Your task to perform on an android device: Go to accessibility settings Image 0: 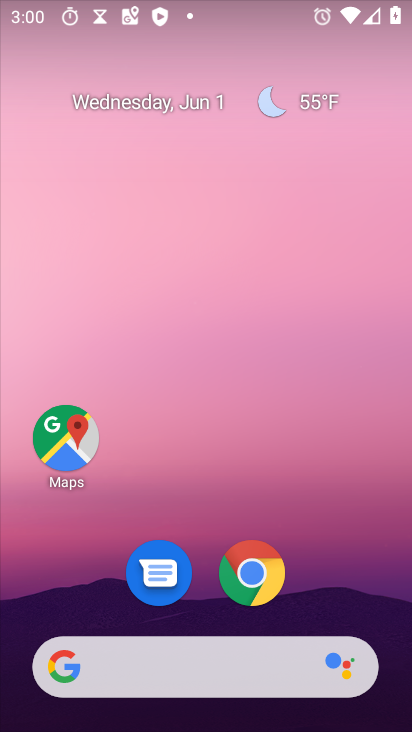
Step 0: drag from (327, 507) to (286, 26)
Your task to perform on an android device: Go to accessibility settings Image 1: 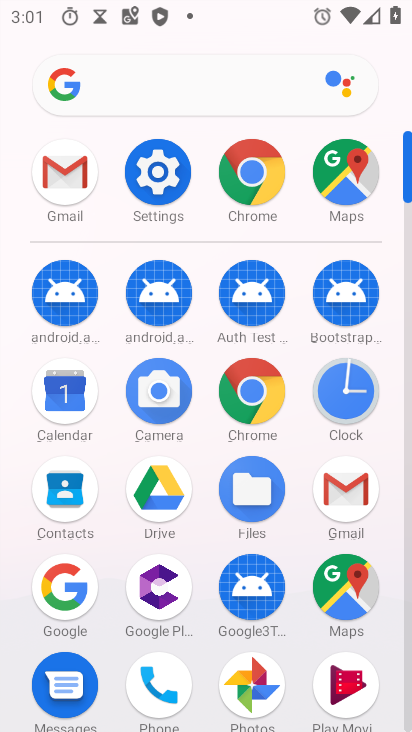
Step 1: click (176, 141)
Your task to perform on an android device: Go to accessibility settings Image 2: 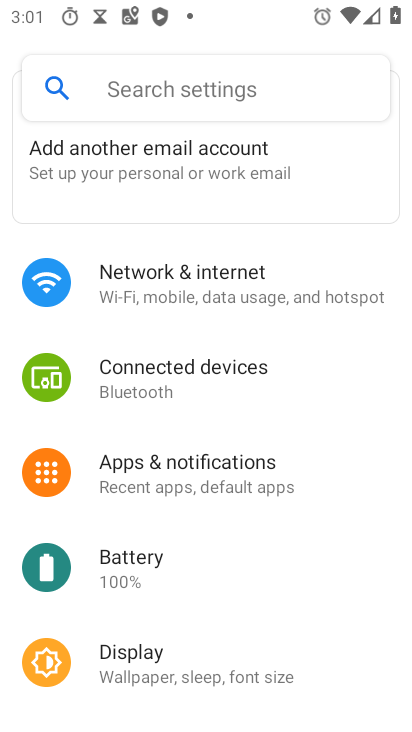
Step 2: drag from (286, 627) to (318, 285)
Your task to perform on an android device: Go to accessibility settings Image 3: 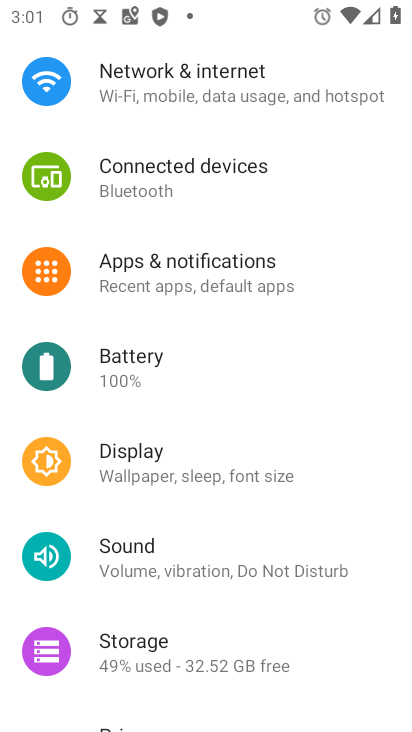
Step 3: drag from (224, 651) to (239, 317)
Your task to perform on an android device: Go to accessibility settings Image 4: 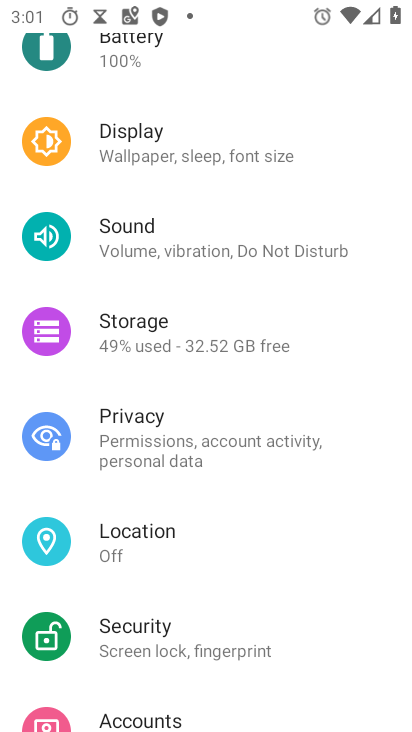
Step 4: drag from (298, 513) to (311, 183)
Your task to perform on an android device: Go to accessibility settings Image 5: 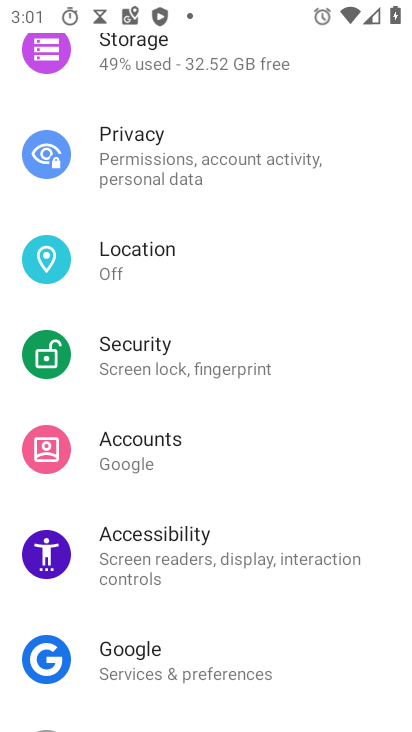
Step 5: drag from (351, 315) to (349, 49)
Your task to perform on an android device: Go to accessibility settings Image 6: 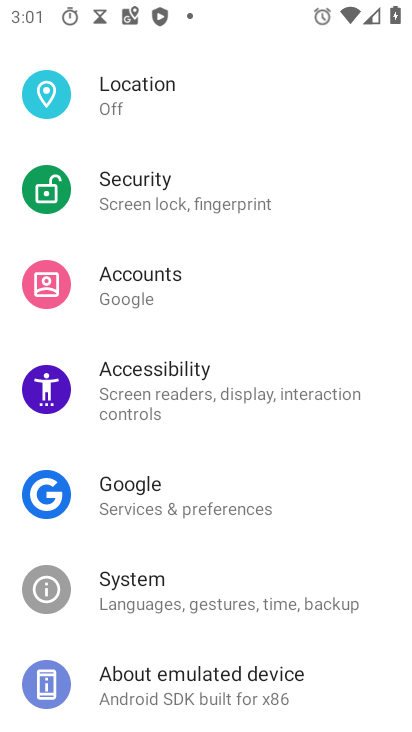
Step 6: drag from (364, 488) to (325, 230)
Your task to perform on an android device: Go to accessibility settings Image 7: 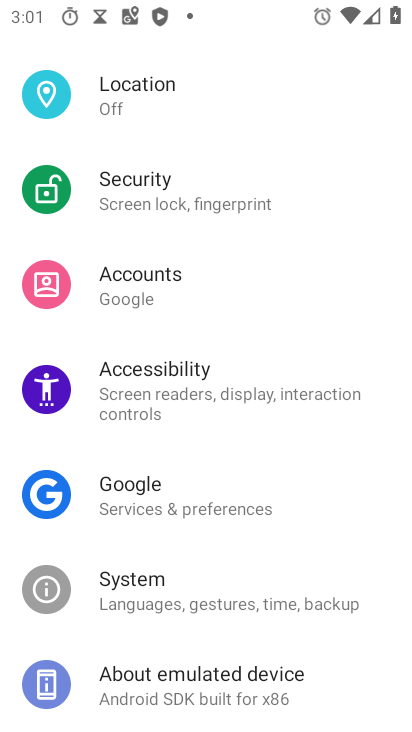
Step 7: click (135, 406)
Your task to perform on an android device: Go to accessibility settings Image 8: 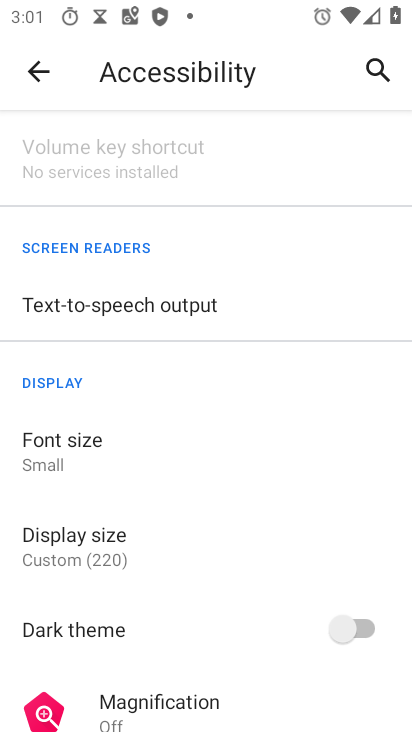
Step 8: task complete